Your task to perform on an android device: What is the capital of Switzerland? Image 0: 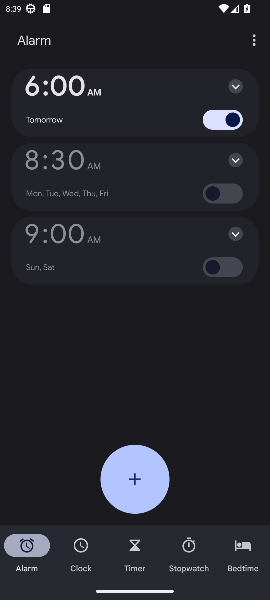
Step 0: press home button
Your task to perform on an android device: What is the capital of Switzerland? Image 1: 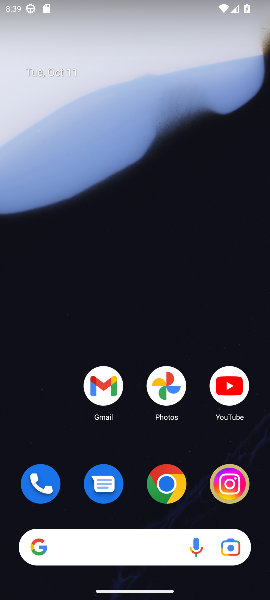
Step 1: click (167, 483)
Your task to perform on an android device: What is the capital of Switzerland? Image 2: 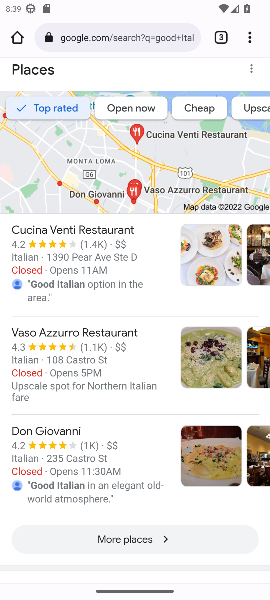
Step 2: click (153, 33)
Your task to perform on an android device: What is the capital of Switzerland? Image 3: 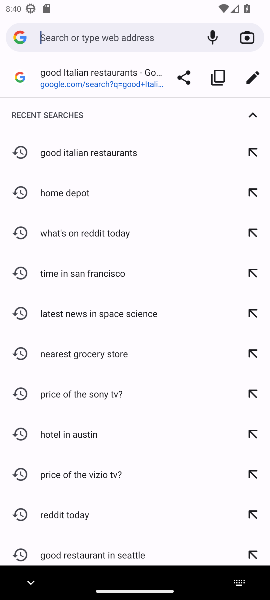
Step 3: type "capital of Switzerland"
Your task to perform on an android device: What is the capital of Switzerland? Image 4: 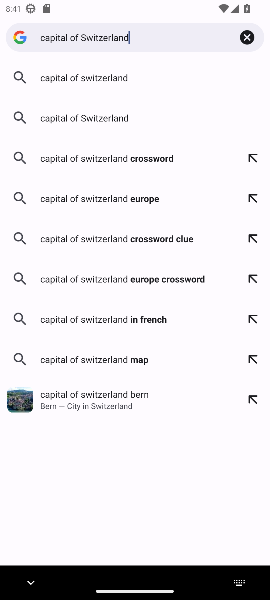
Step 4: click (121, 78)
Your task to perform on an android device: What is the capital of Switzerland? Image 5: 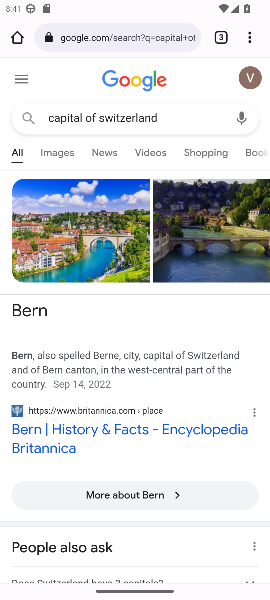
Step 5: task complete